Your task to perform on an android device: turn vacation reply on in the gmail app Image 0: 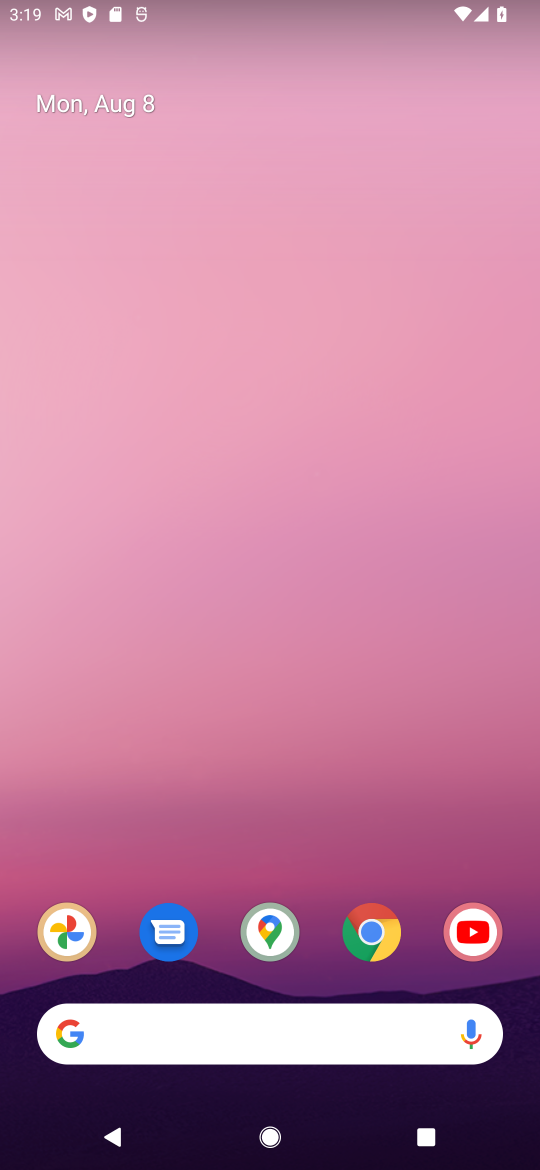
Step 0: drag from (161, 1094) to (223, 140)
Your task to perform on an android device: turn vacation reply on in the gmail app Image 1: 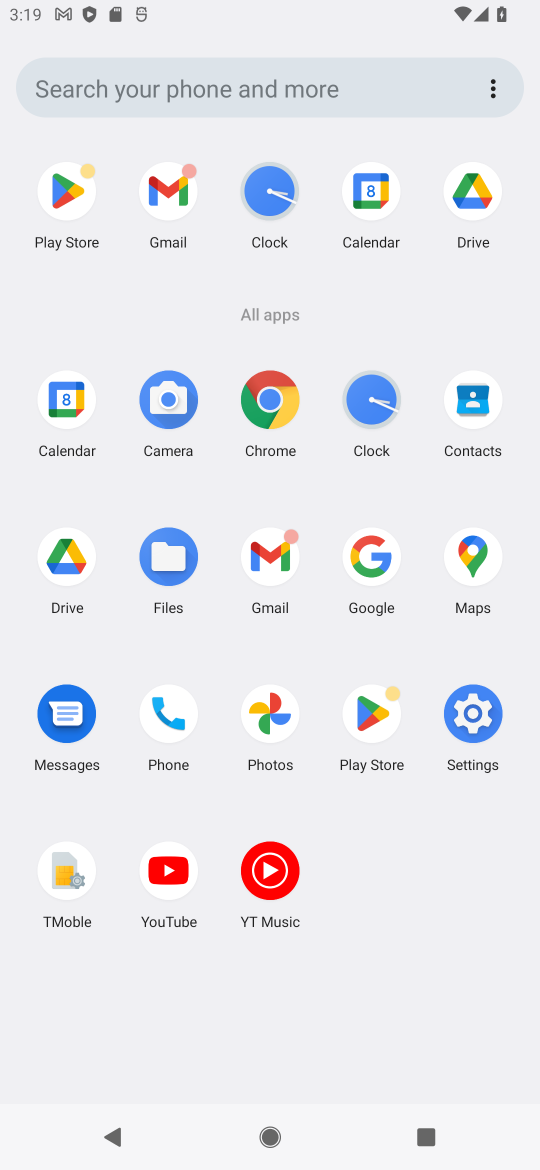
Step 1: click (238, 547)
Your task to perform on an android device: turn vacation reply on in the gmail app Image 2: 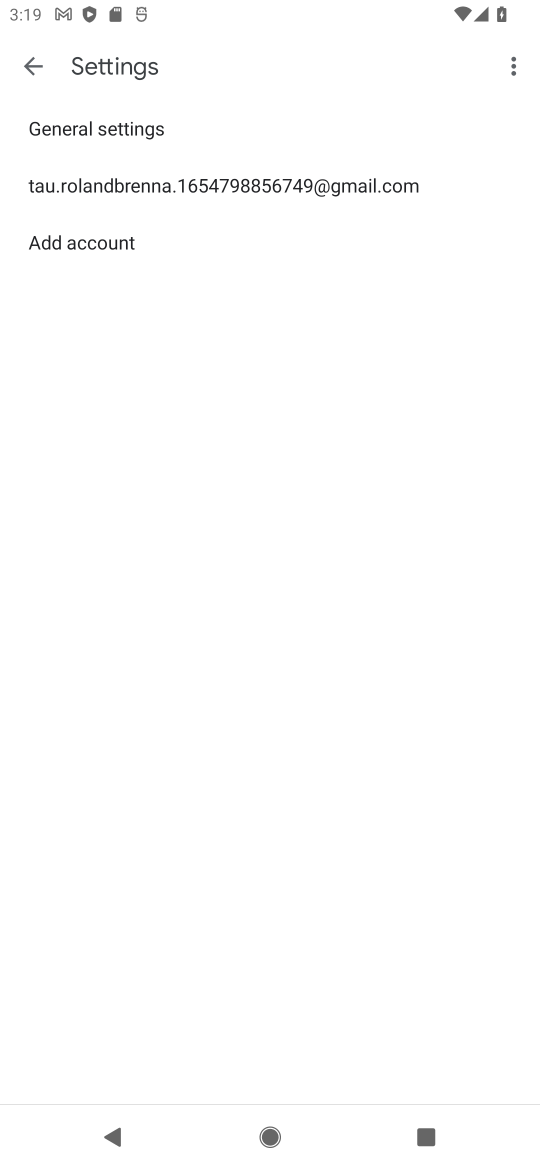
Step 2: click (393, 180)
Your task to perform on an android device: turn vacation reply on in the gmail app Image 3: 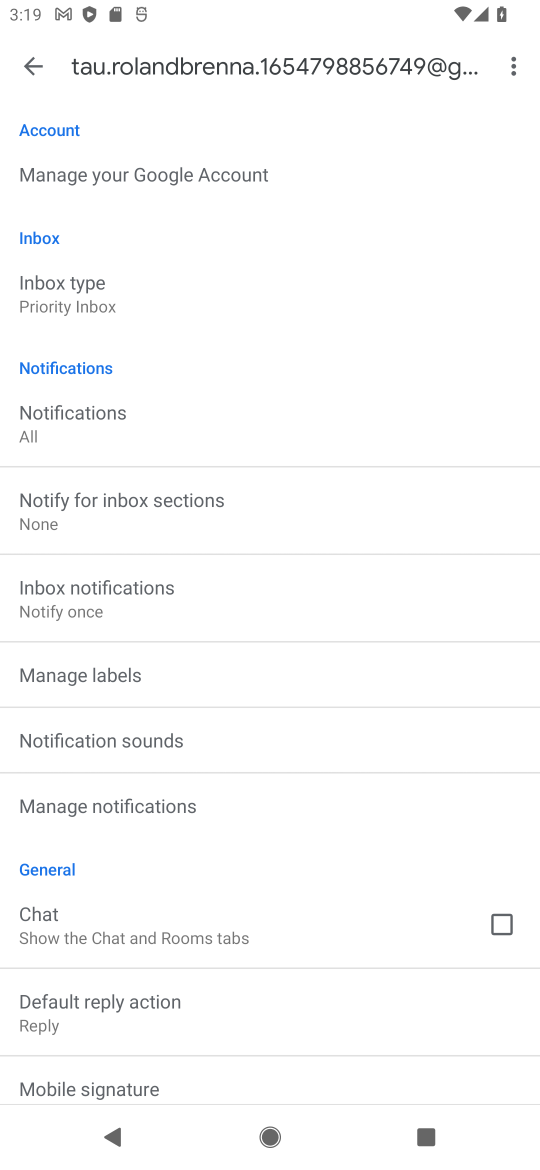
Step 3: drag from (282, 1010) to (293, 197)
Your task to perform on an android device: turn vacation reply on in the gmail app Image 4: 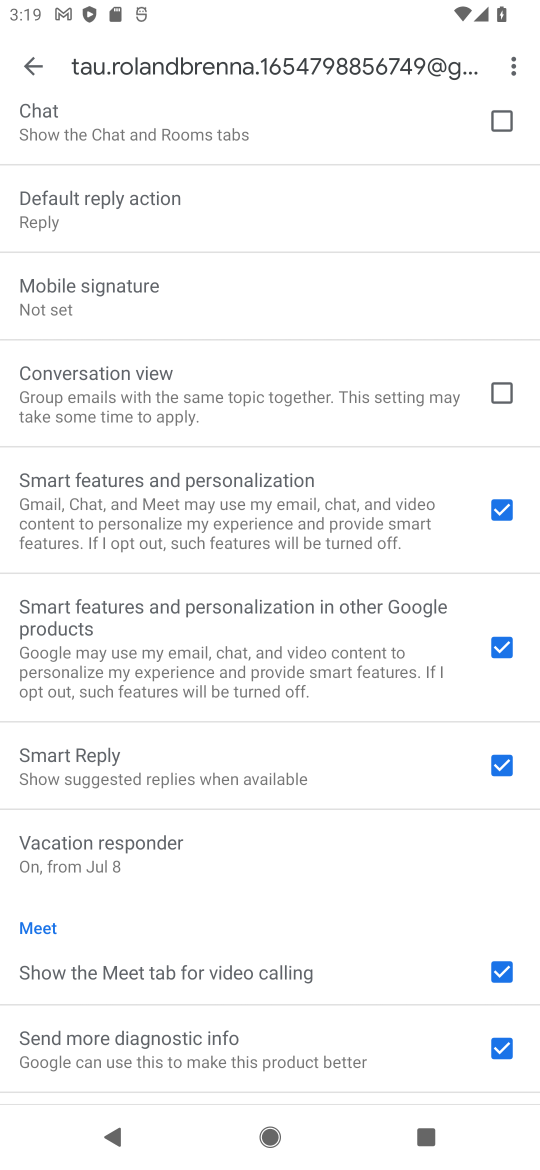
Step 4: click (262, 832)
Your task to perform on an android device: turn vacation reply on in the gmail app Image 5: 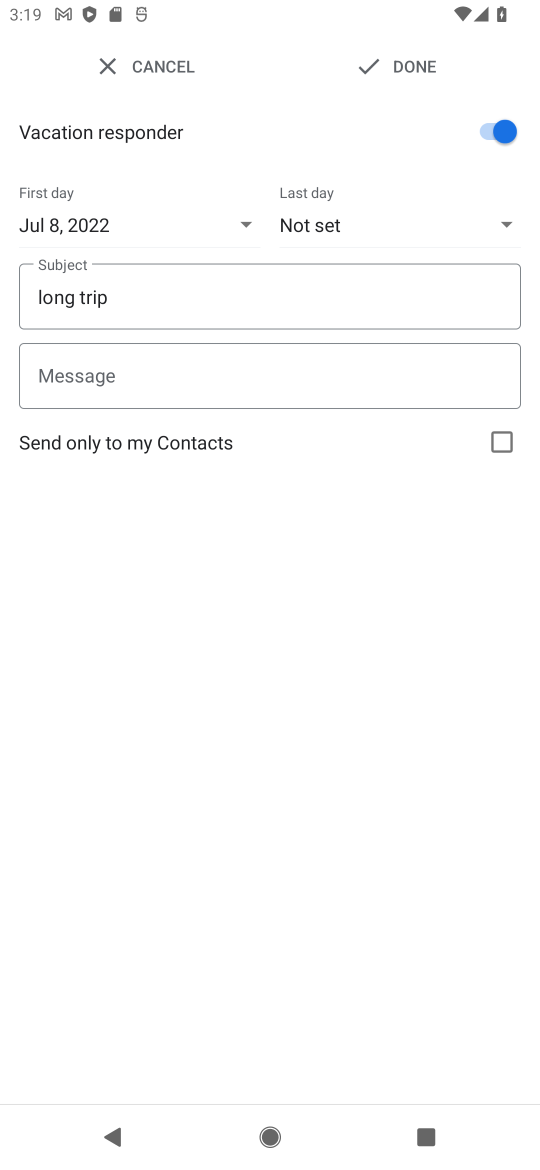
Step 5: click (390, 73)
Your task to perform on an android device: turn vacation reply on in the gmail app Image 6: 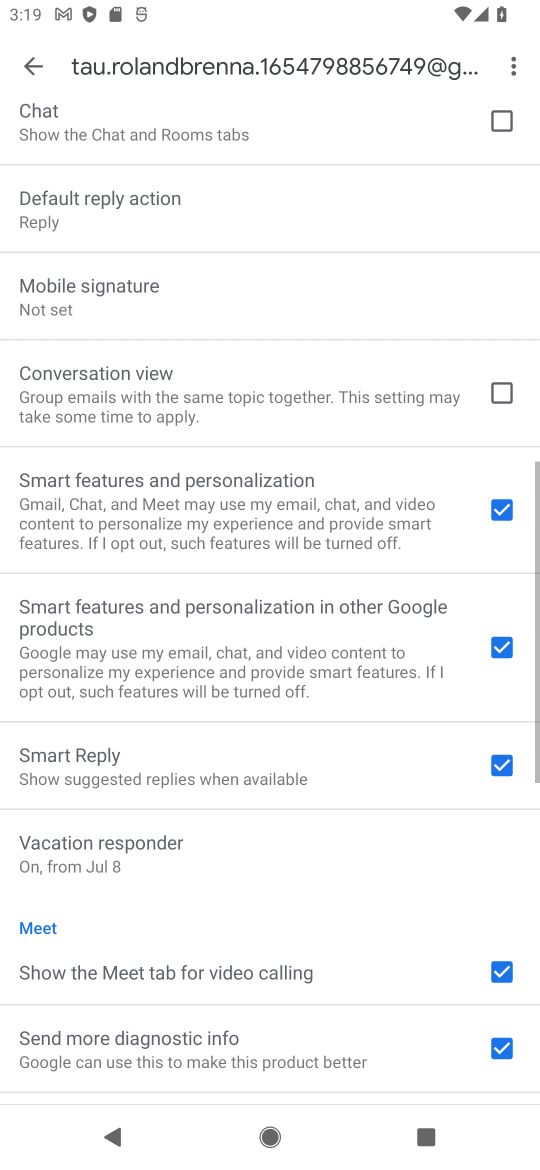
Step 6: task complete